Your task to perform on an android device: find snoozed emails in the gmail app Image 0: 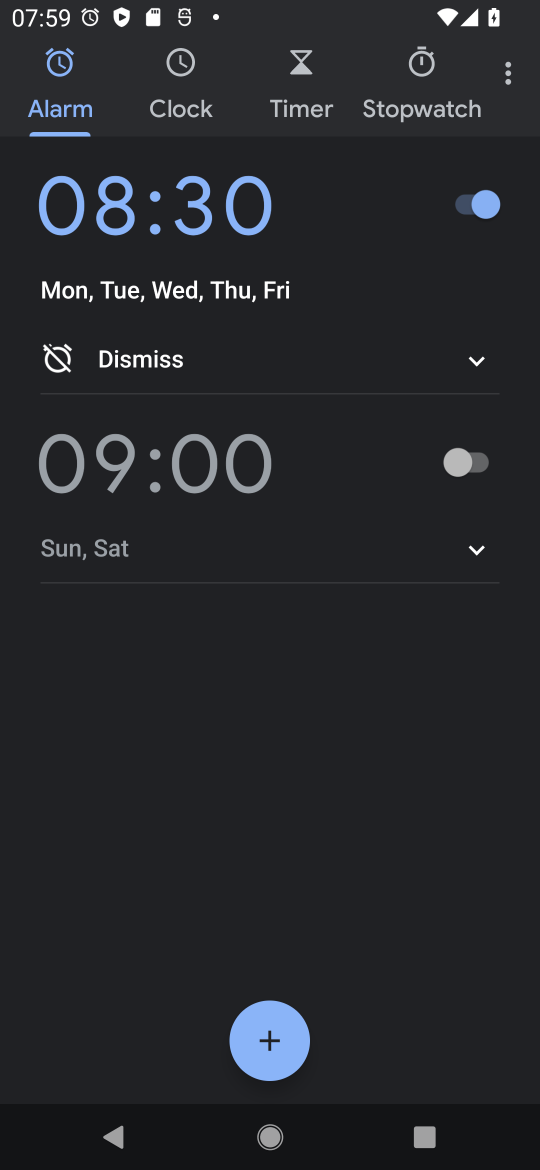
Step 0: press home button
Your task to perform on an android device: find snoozed emails in the gmail app Image 1: 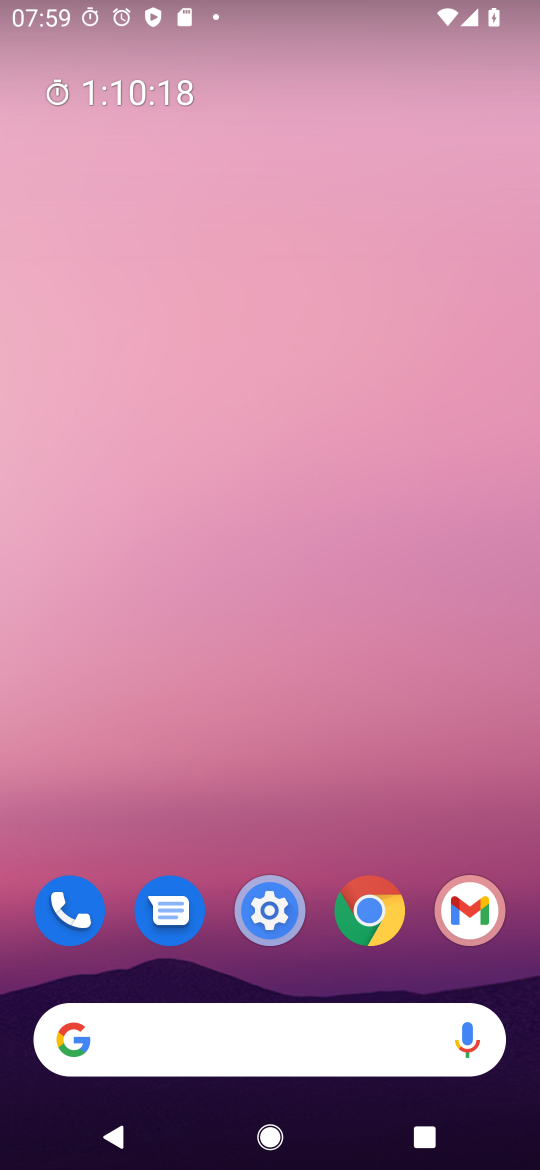
Step 1: drag from (241, 1050) to (219, 251)
Your task to perform on an android device: find snoozed emails in the gmail app Image 2: 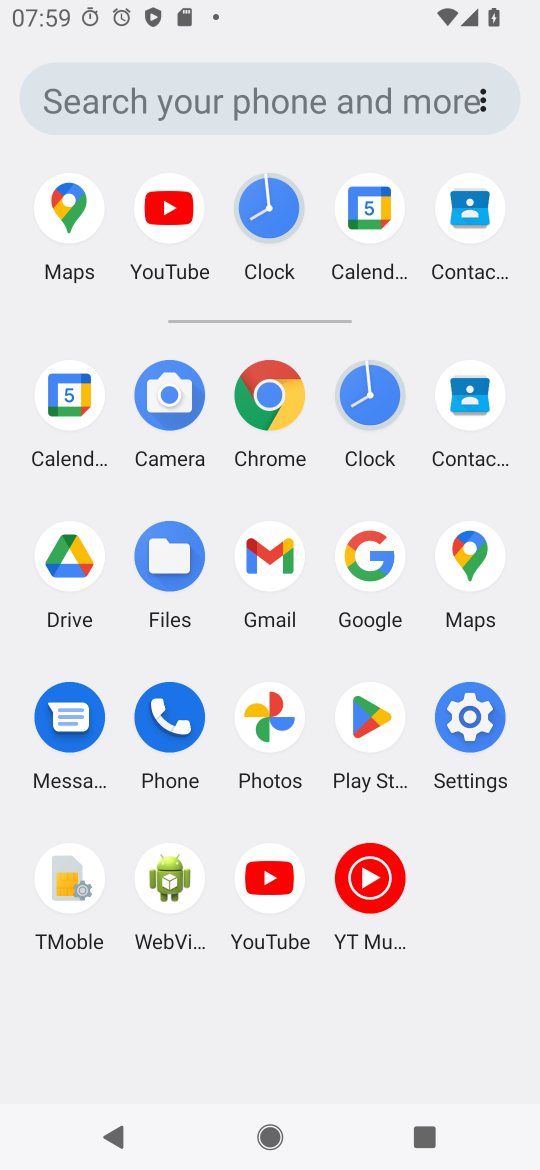
Step 2: click (263, 551)
Your task to perform on an android device: find snoozed emails in the gmail app Image 3: 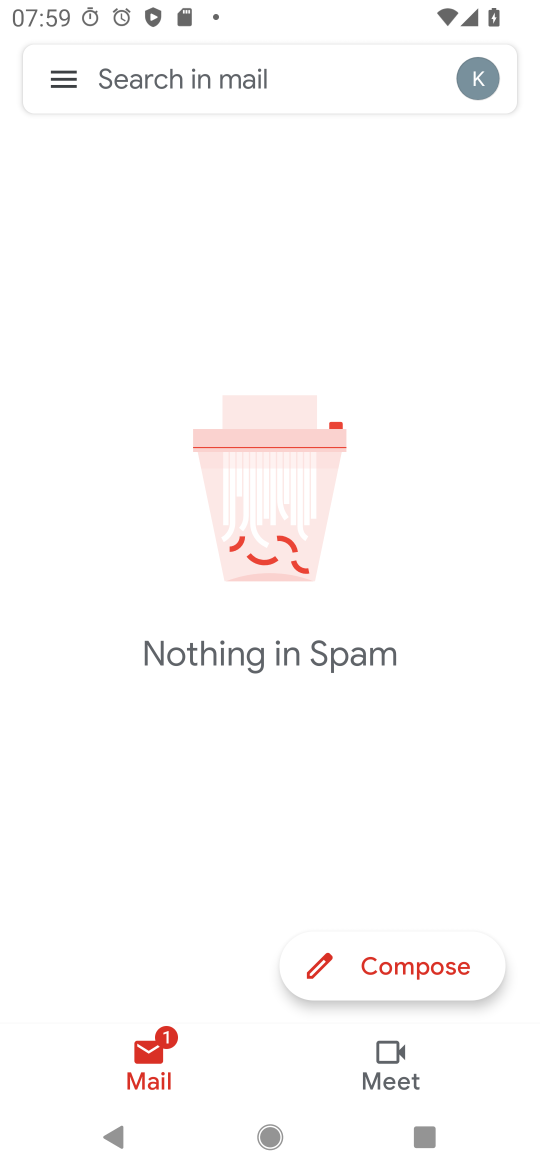
Step 3: click (64, 57)
Your task to perform on an android device: find snoozed emails in the gmail app Image 4: 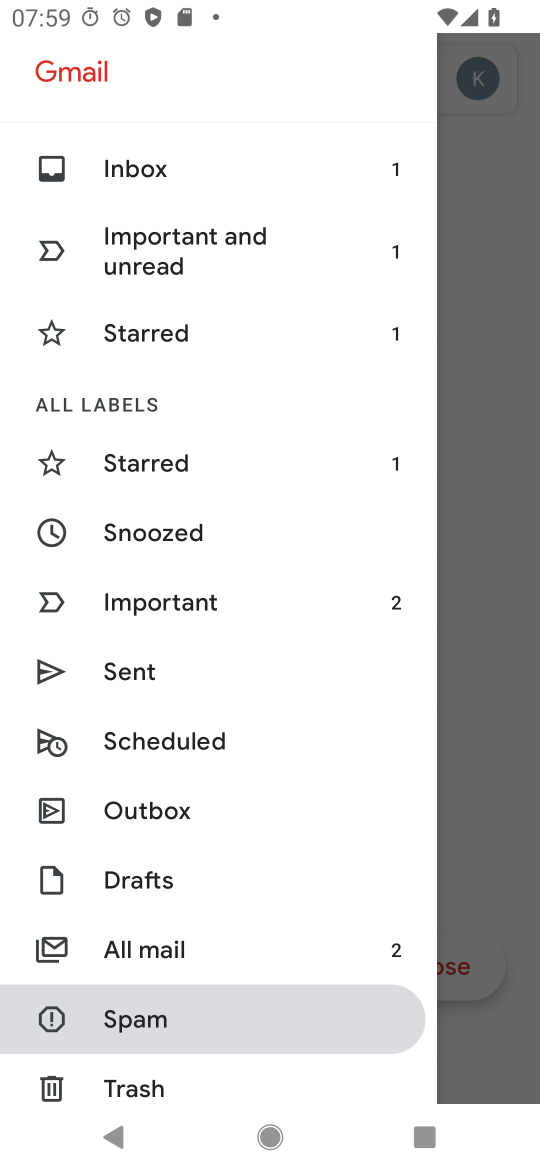
Step 4: click (186, 543)
Your task to perform on an android device: find snoozed emails in the gmail app Image 5: 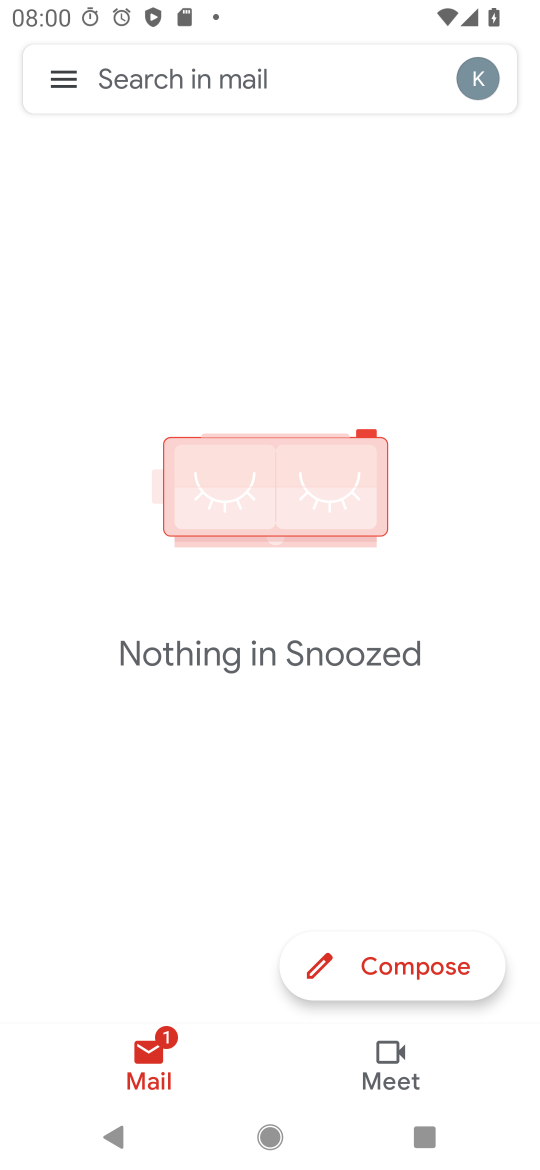
Step 5: task complete